Your task to perform on an android device: turn vacation reply on in the gmail app Image 0: 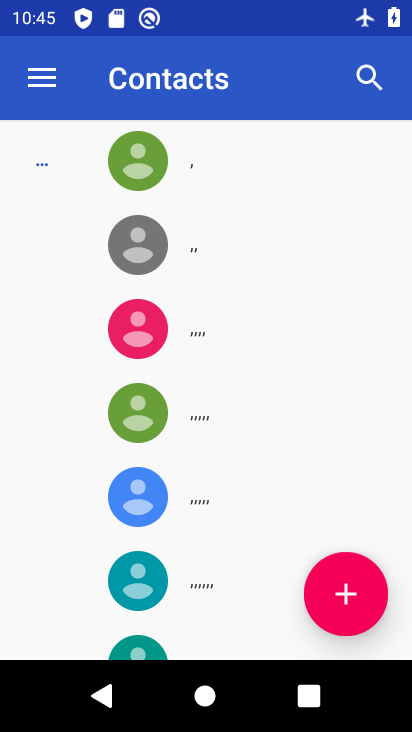
Step 0: press back button
Your task to perform on an android device: turn vacation reply on in the gmail app Image 1: 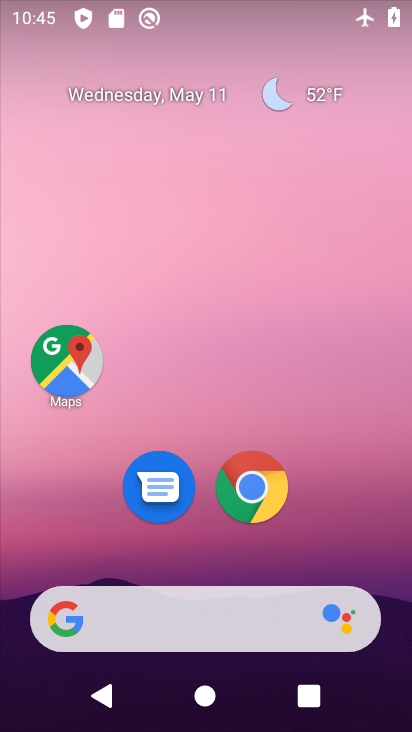
Step 1: drag from (364, 546) to (226, 11)
Your task to perform on an android device: turn vacation reply on in the gmail app Image 2: 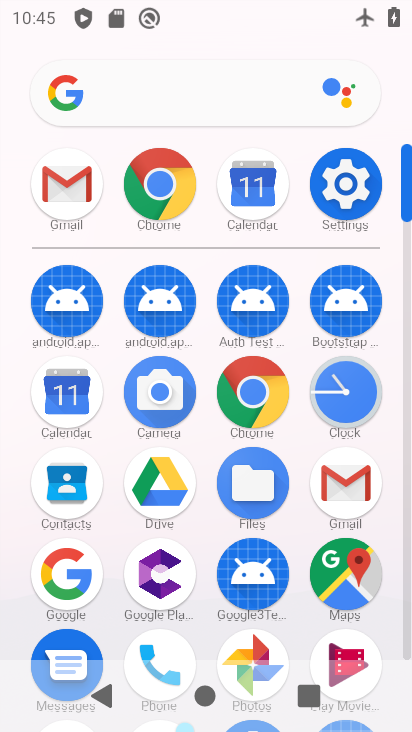
Step 2: drag from (7, 543) to (12, 261)
Your task to perform on an android device: turn vacation reply on in the gmail app Image 3: 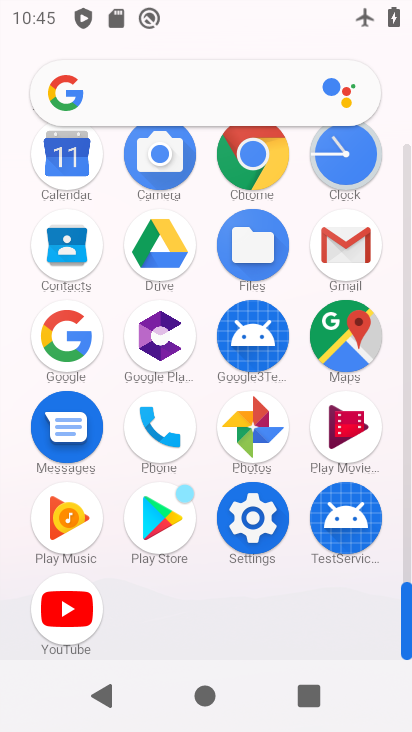
Step 3: click (343, 241)
Your task to perform on an android device: turn vacation reply on in the gmail app Image 4: 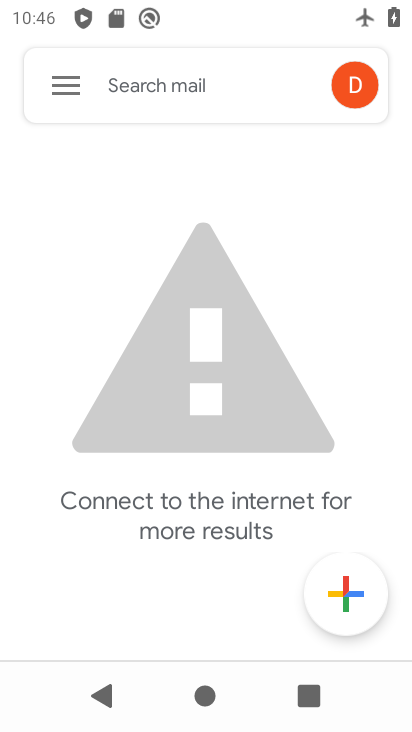
Step 4: click (51, 79)
Your task to perform on an android device: turn vacation reply on in the gmail app Image 5: 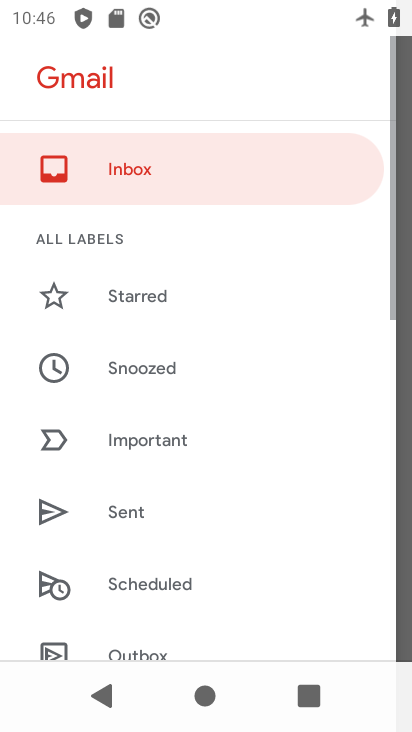
Step 5: drag from (227, 567) to (253, 152)
Your task to perform on an android device: turn vacation reply on in the gmail app Image 6: 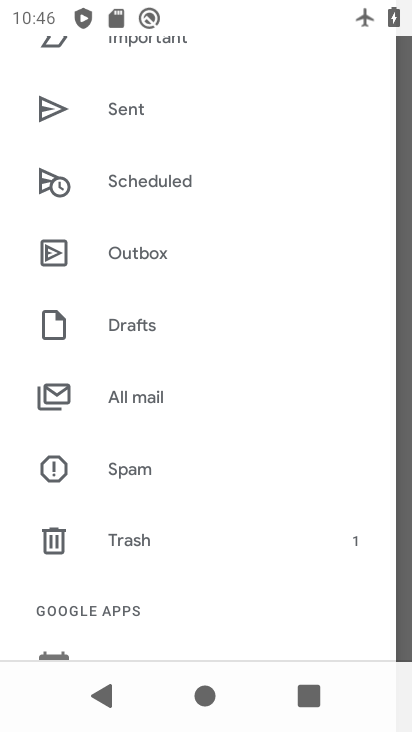
Step 6: drag from (207, 538) to (221, 163)
Your task to perform on an android device: turn vacation reply on in the gmail app Image 7: 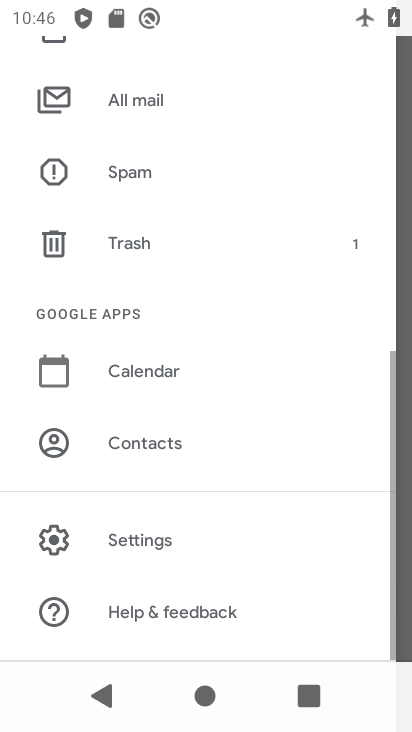
Step 7: click (138, 536)
Your task to perform on an android device: turn vacation reply on in the gmail app Image 8: 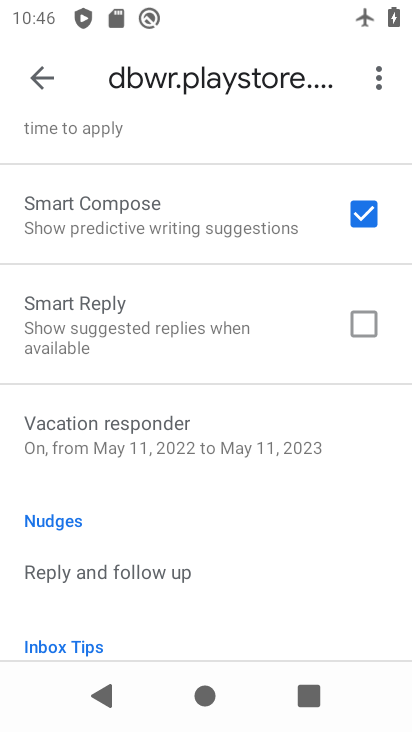
Step 8: drag from (224, 577) to (224, 154)
Your task to perform on an android device: turn vacation reply on in the gmail app Image 9: 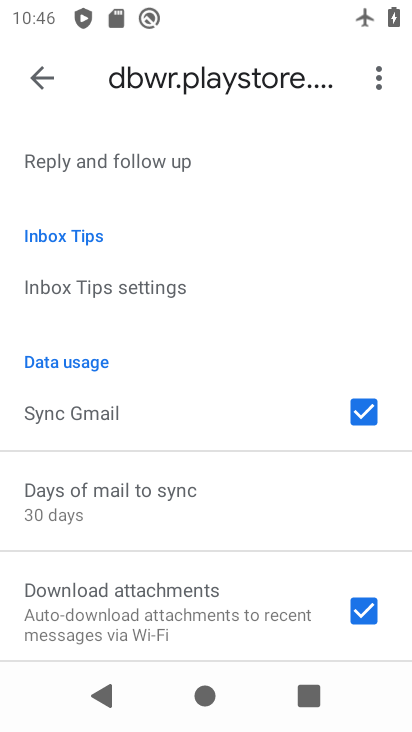
Step 9: drag from (239, 539) to (242, 154)
Your task to perform on an android device: turn vacation reply on in the gmail app Image 10: 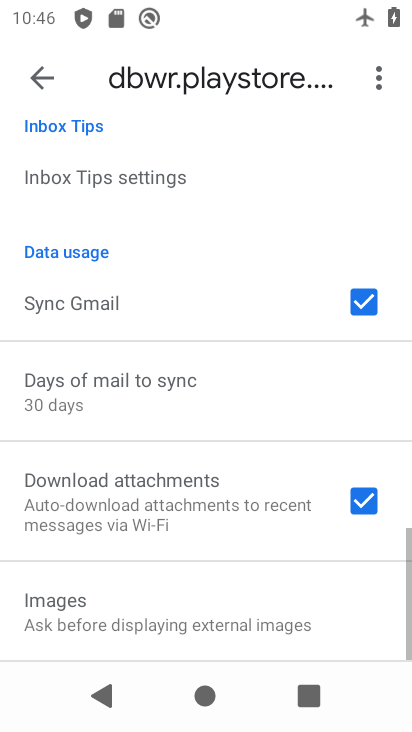
Step 10: drag from (224, 332) to (221, 596)
Your task to perform on an android device: turn vacation reply on in the gmail app Image 11: 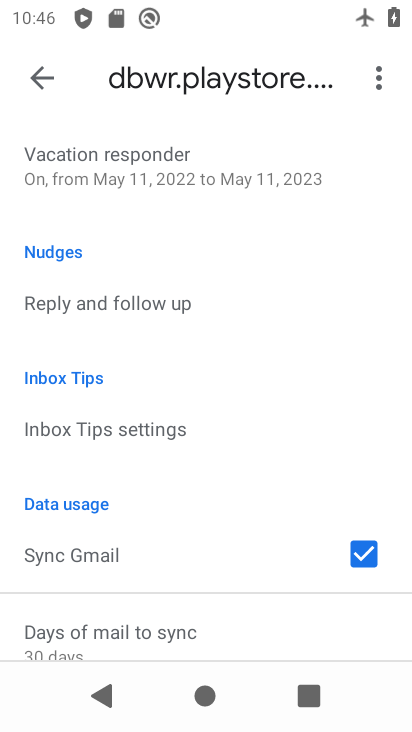
Step 11: drag from (221, 229) to (243, 549)
Your task to perform on an android device: turn vacation reply on in the gmail app Image 12: 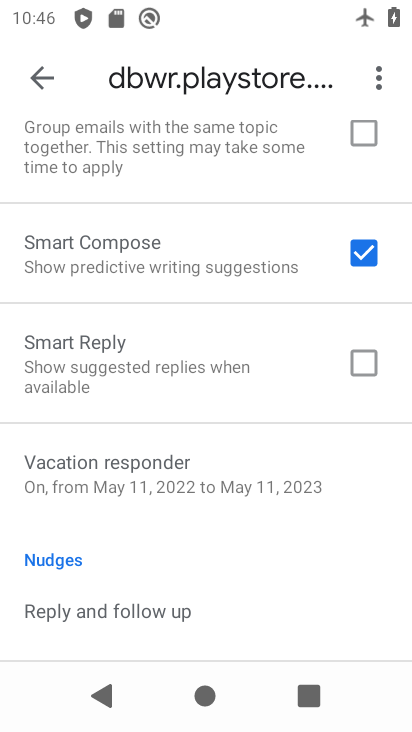
Step 12: click (201, 474)
Your task to perform on an android device: turn vacation reply on in the gmail app Image 13: 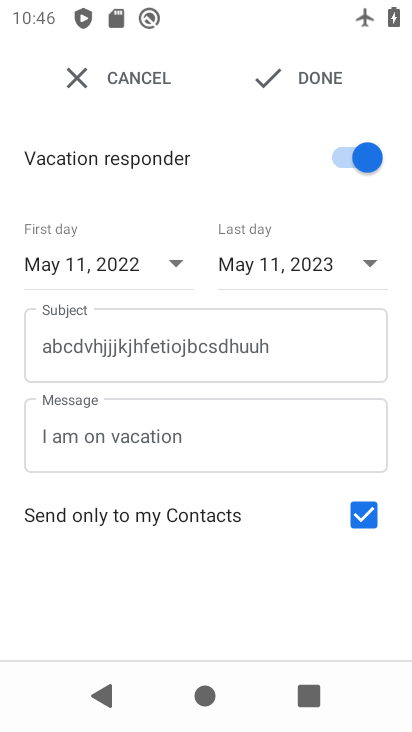
Step 13: click (283, 69)
Your task to perform on an android device: turn vacation reply on in the gmail app Image 14: 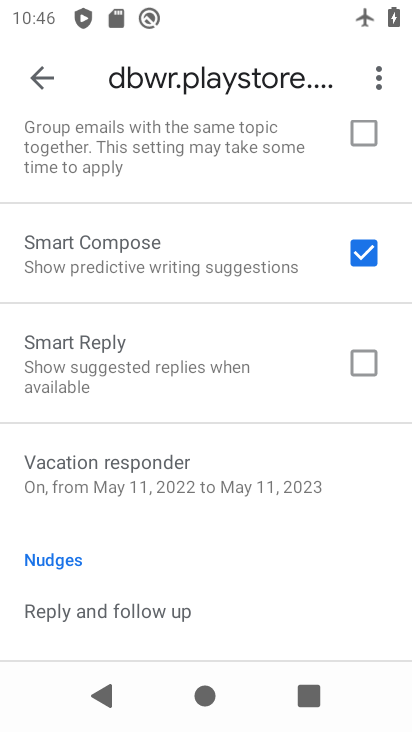
Step 14: click (164, 472)
Your task to perform on an android device: turn vacation reply on in the gmail app Image 15: 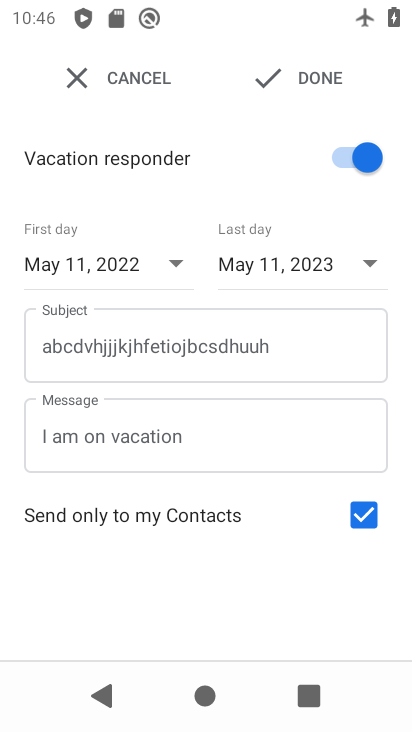
Step 15: click (315, 74)
Your task to perform on an android device: turn vacation reply on in the gmail app Image 16: 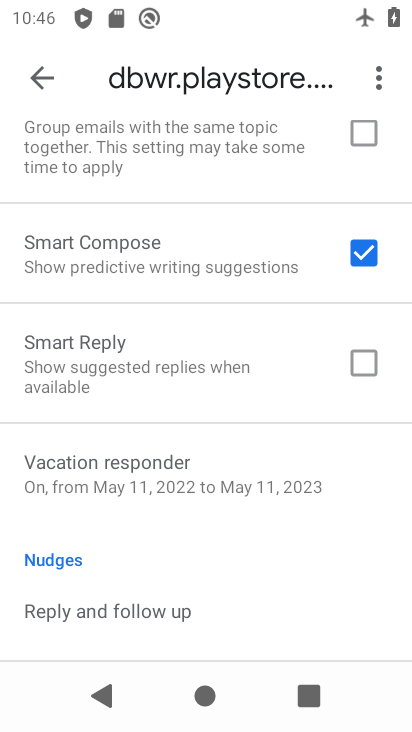
Step 16: task complete